Your task to perform on an android device: What is the recent news? Image 0: 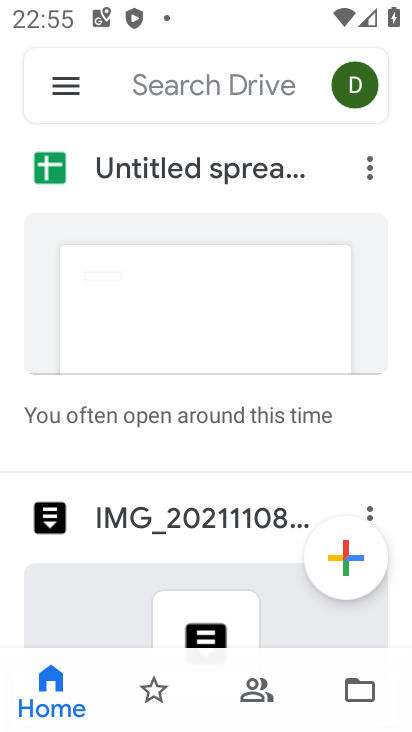
Step 0: press home button
Your task to perform on an android device: What is the recent news? Image 1: 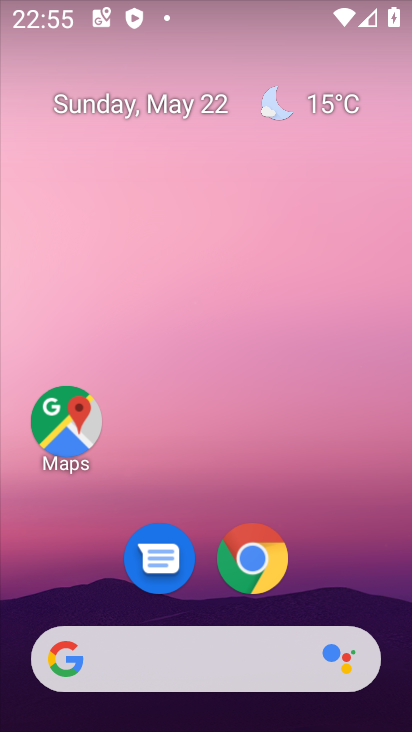
Step 1: click (125, 656)
Your task to perform on an android device: What is the recent news? Image 2: 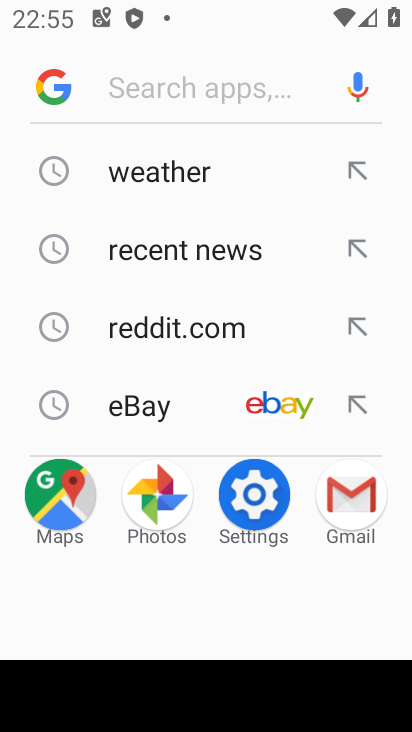
Step 2: click (173, 261)
Your task to perform on an android device: What is the recent news? Image 3: 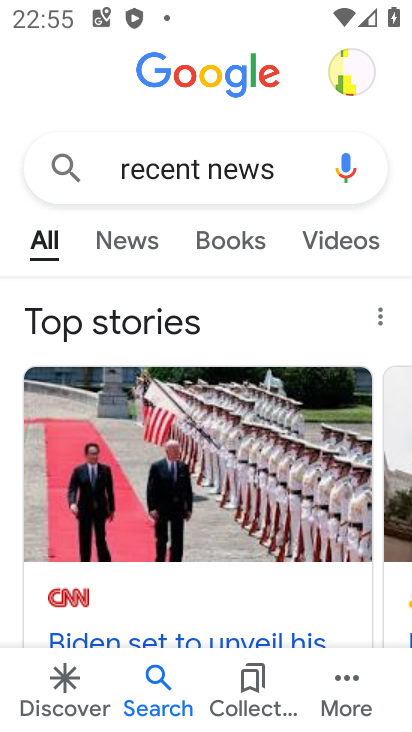
Step 3: click (132, 247)
Your task to perform on an android device: What is the recent news? Image 4: 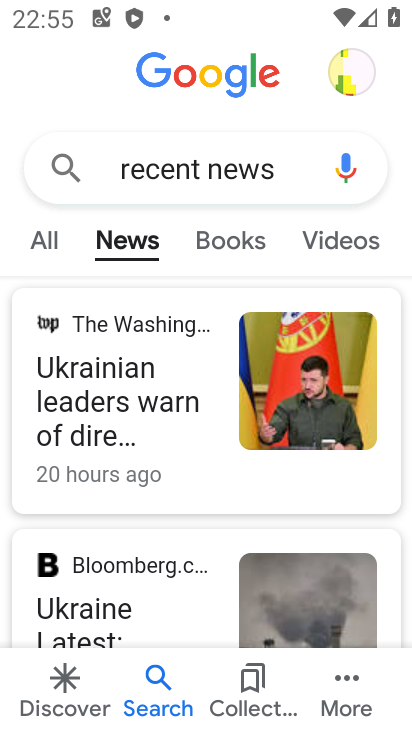
Step 4: drag from (156, 564) to (197, 112)
Your task to perform on an android device: What is the recent news? Image 5: 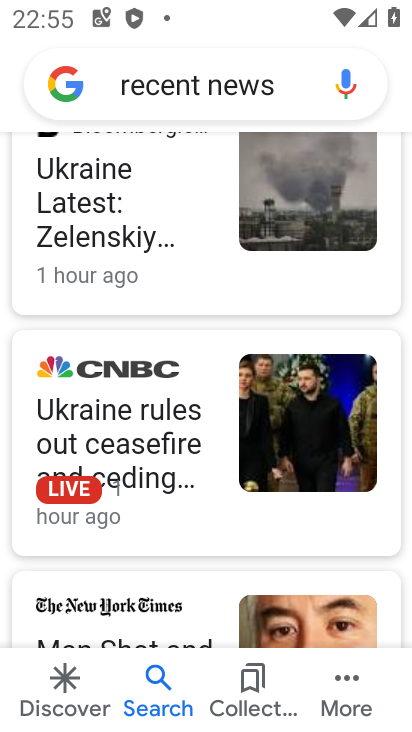
Step 5: click (83, 215)
Your task to perform on an android device: What is the recent news? Image 6: 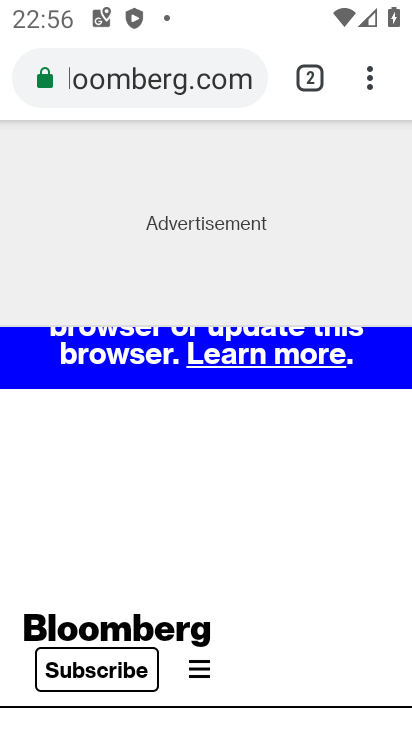
Step 6: task complete